Your task to perform on an android device: open a new tab in the chrome app Image 0: 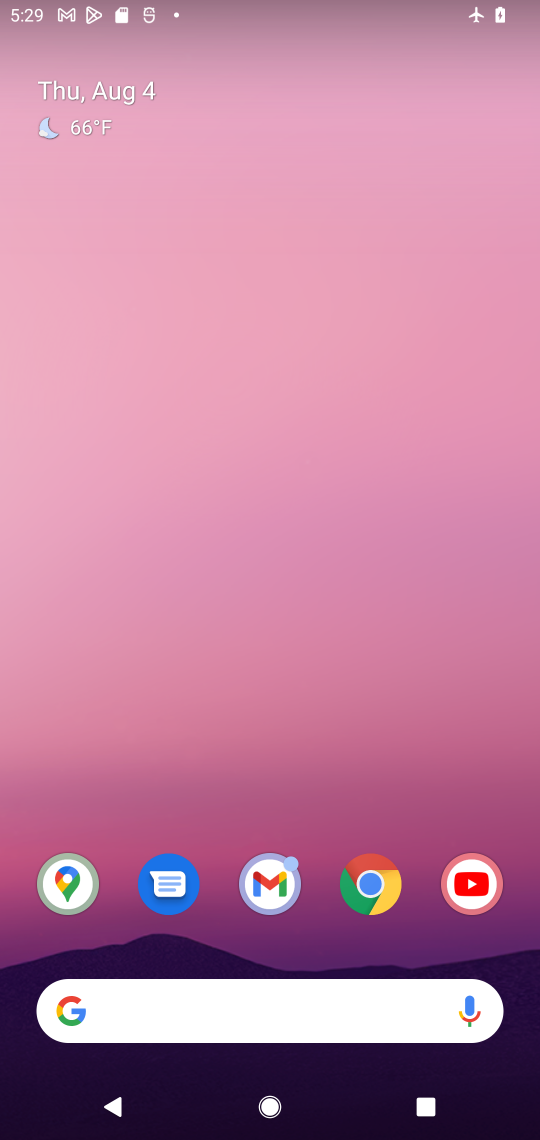
Step 0: click (363, 890)
Your task to perform on an android device: open a new tab in the chrome app Image 1: 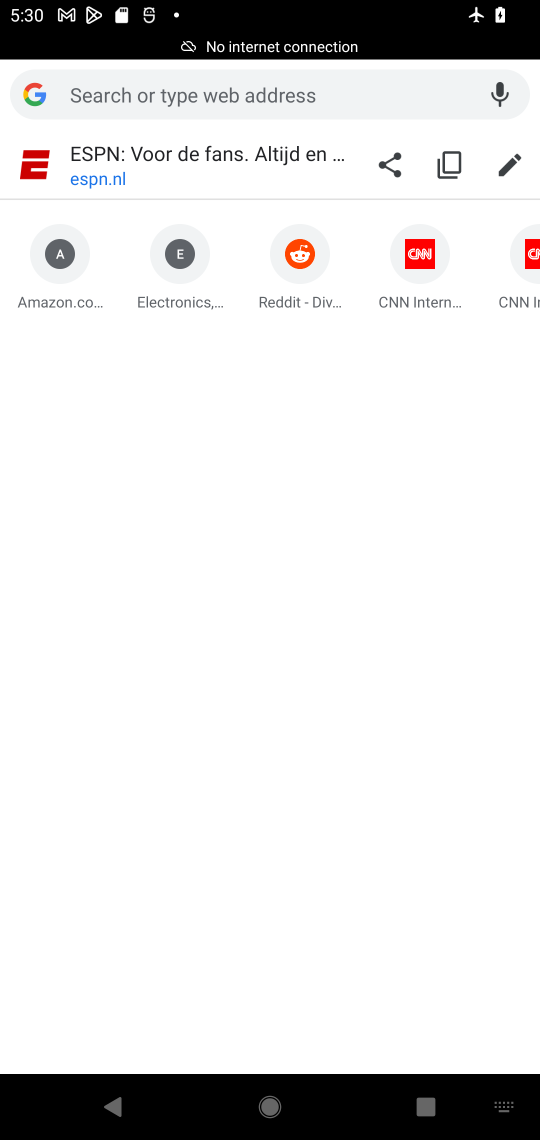
Step 1: click (253, 432)
Your task to perform on an android device: open a new tab in the chrome app Image 2: 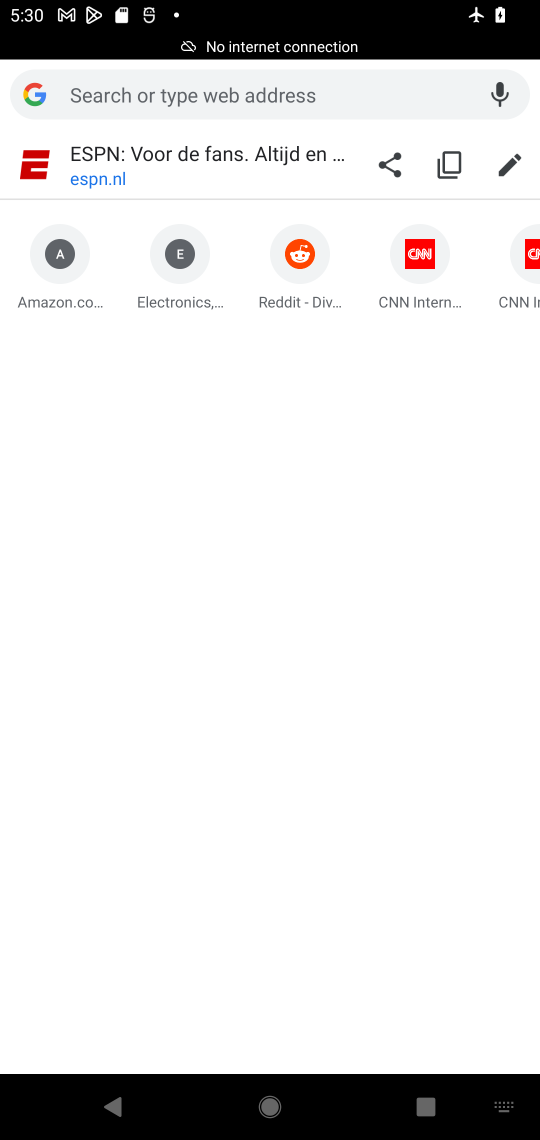
Step 2: press back button
Your task to perform on an android device: open a new tab in the chrome app Image 3: 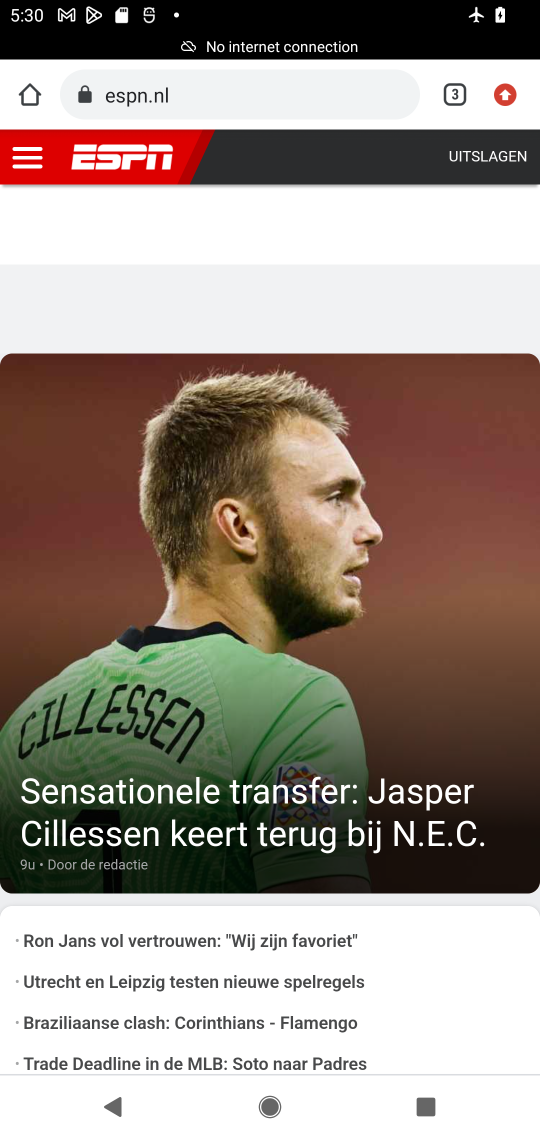
Step 3: click (457, 110)
Your task to perform on an android device: open a new tab in the chrome app Image 4: 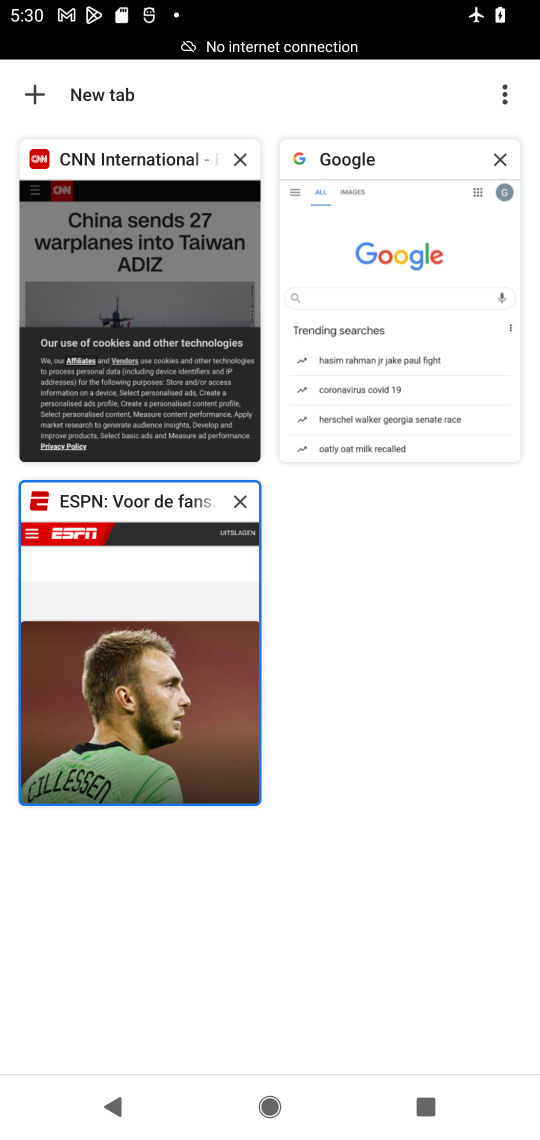
Step 4: click (65, 96)
Your task to perform on an android device: open a new tab in the chrome app Image 5: 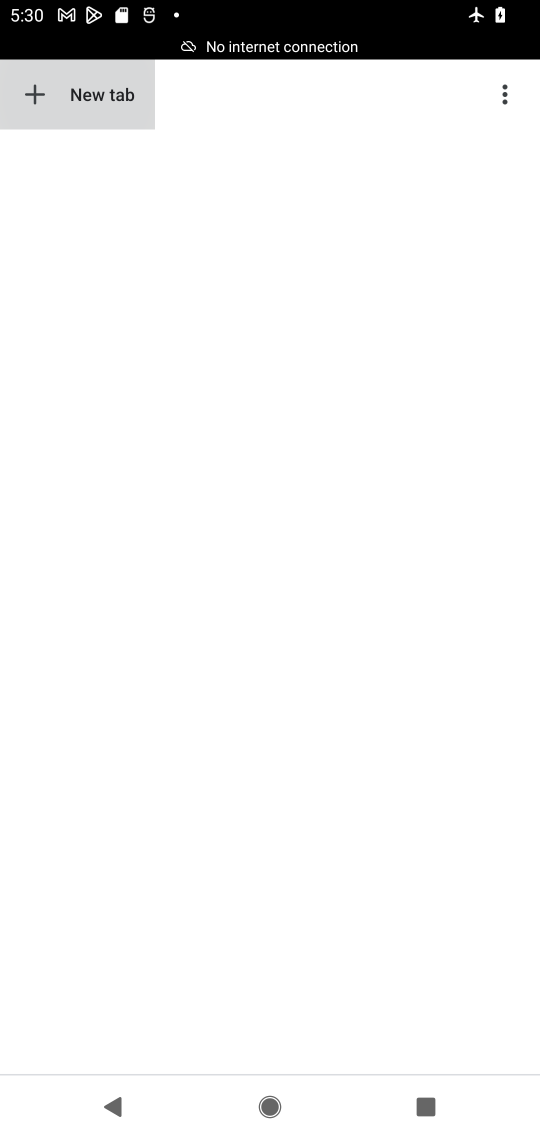
Step 5: task complete